Your task to perform on an android device: toggle priority inbox in the gmail app Image 0: 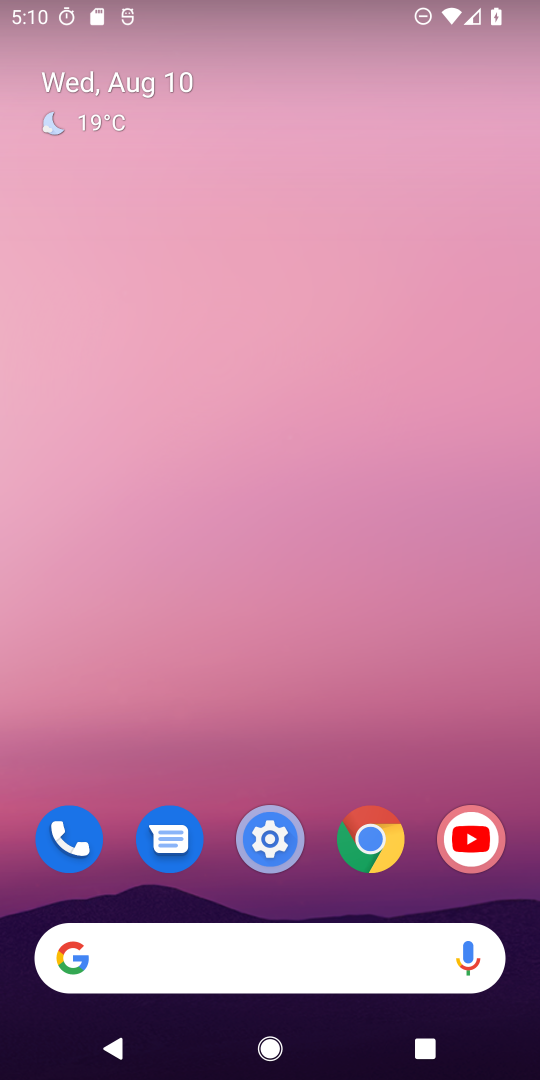
Step 0: drag from (42, 1048) to (209, 671)
Your task to perform on an android device: toggle priority inbox in the gmail app Image 1: 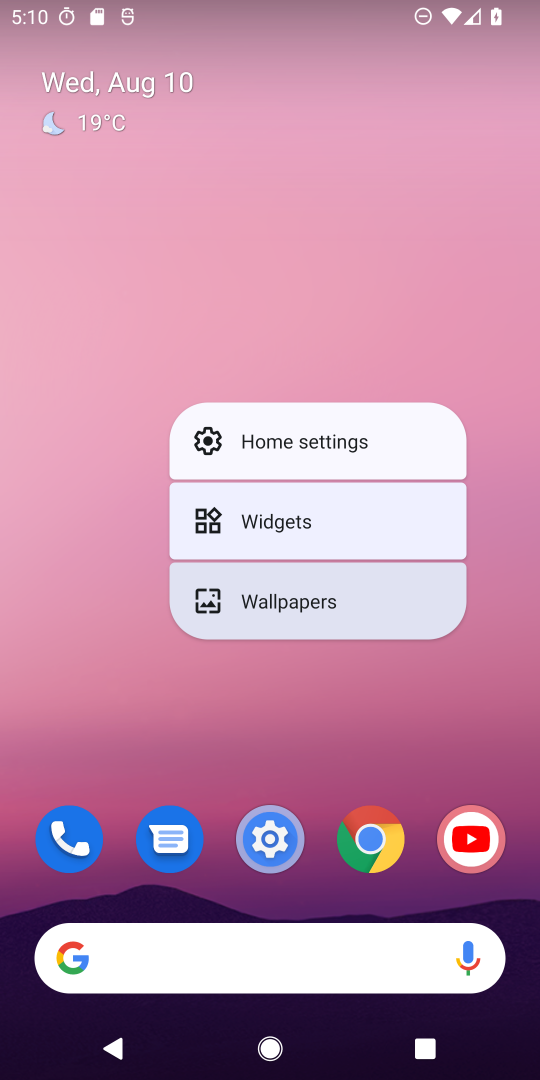
Step 1: task complete